Your task to perform on an android device: What's the weather going to be this weekend? Image 0: 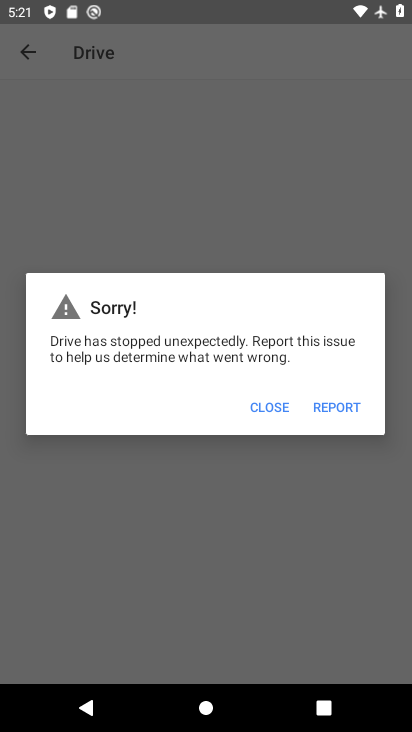
Step 0: press home button
Your task to perform on an android device: What's the weather going to be this weekend? Image 1: 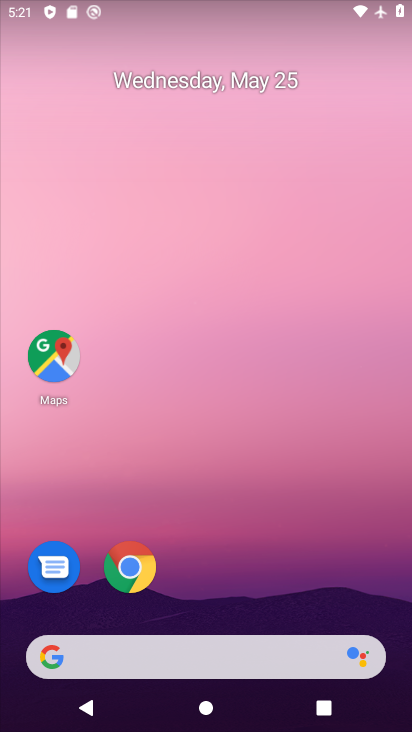
Step 1: drag from (231, 516) to (213, 7)
Your task to perform on an android device: What's the weather going to be this weekend? Image 2: 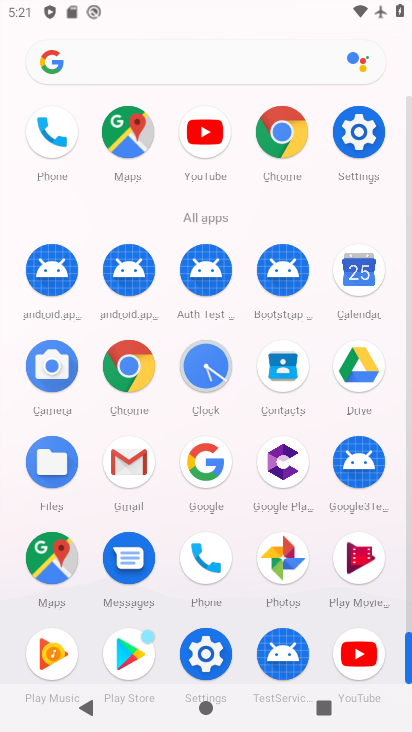
Step 2: drag from (15, 511) to (22, 226)
Your task to perform on an android device: What's the weather going to be this weekend? Image 3: 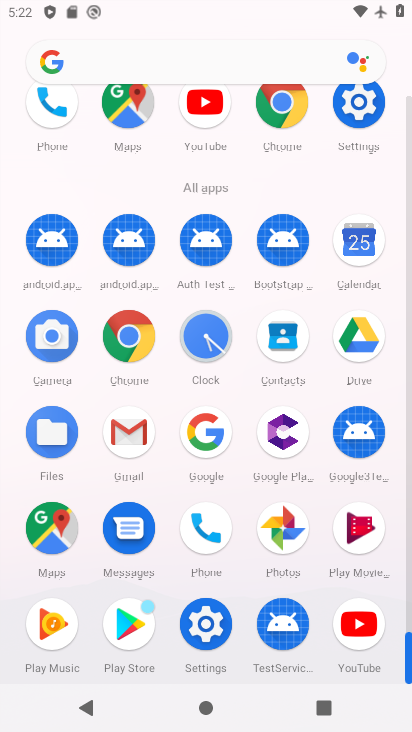
Step 3: click (130, 332)
Your task to perform on an android device: What's the weather going to be this weekend? Image 4: 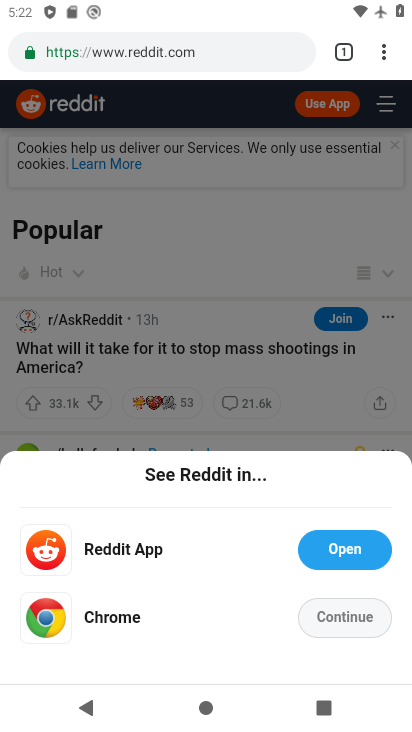
Step 4: click (137, 44)
Your task to perform on an android device: What's the weather going to be this weekend? Image 5: 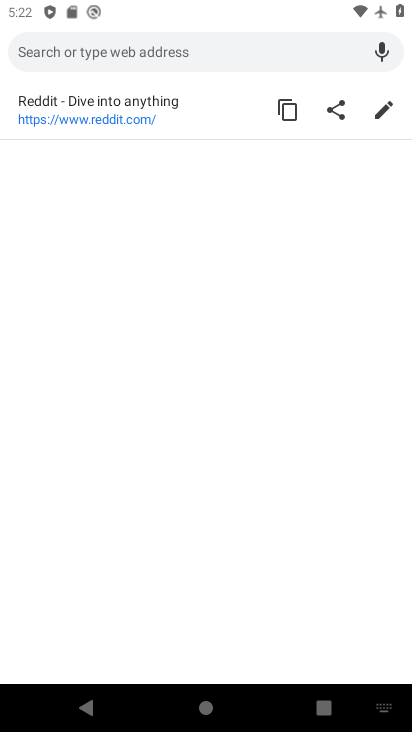
Step 5: type "What's the weather going to be this weekend?"
Your task to perform on an android device: What's the weather going to be this weekend? Image 6: 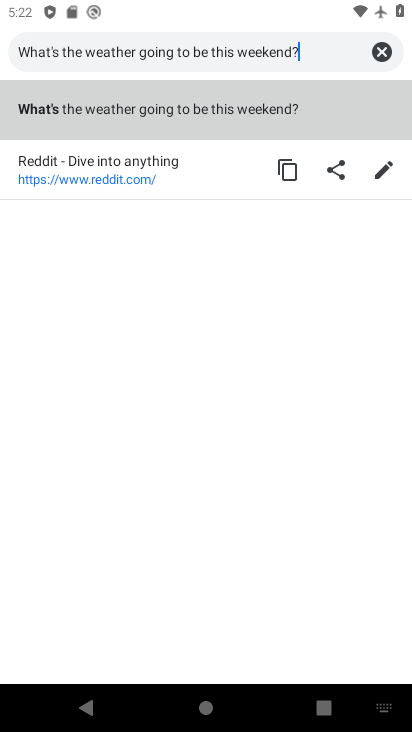
Step 6: type ""
Your task to perform on an android device: What's the weather going to be this weekend? Image 7: 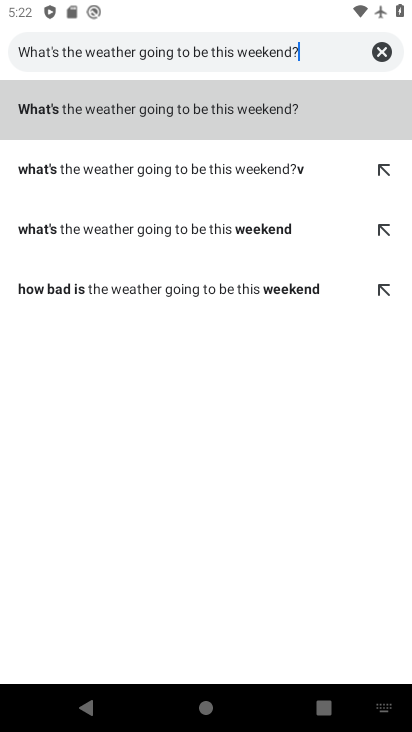
Step 7: click (193, 110)
Your task to perform on an android device: What's the weather going to be this weekend? Image 8: 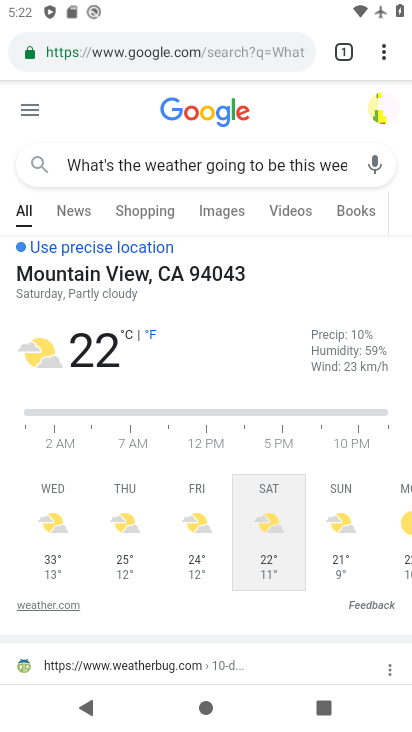
Step 8: task complete